Your task to perform on an android device: Open Reddit.com Image 0: 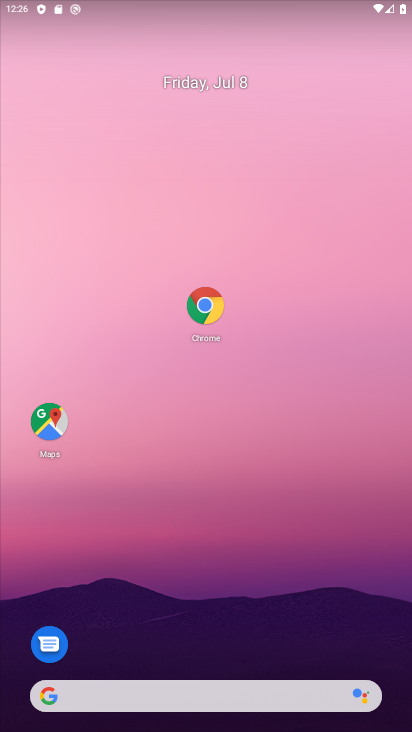
Step 0: drag from (183, 678) to (121, 352)
Your task to perform on an android device: Open Reddit.com Image 1: 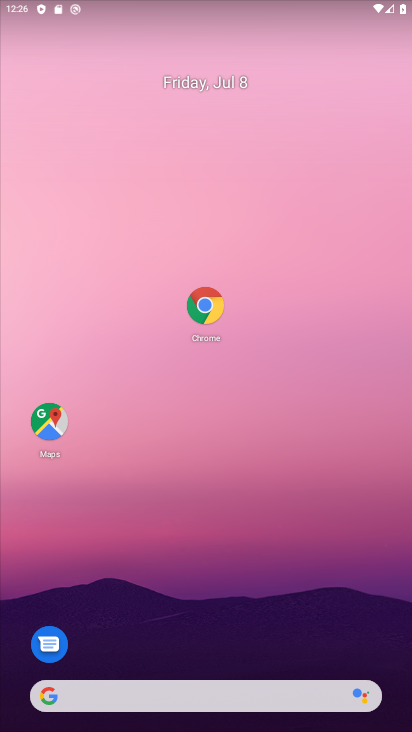
Step 1: drag from (184, 400) to (188, 176)
Your task to perform on an android device: Open Reddit.com Image 2: 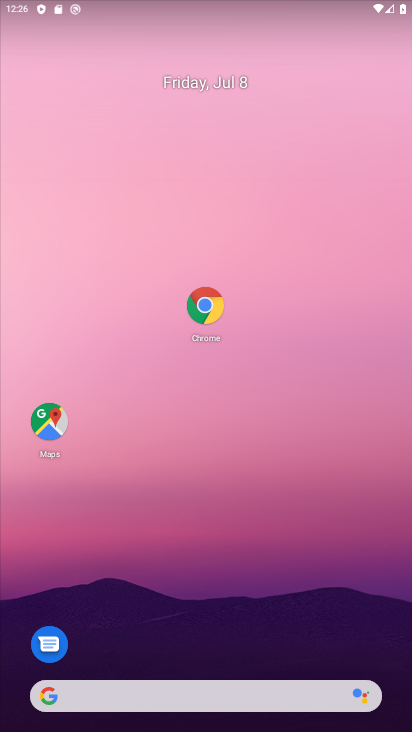
Step 2: drag from (178, 592) to (178, 223)
Your task to perform on an android device: Open Reddit.com Image 3: 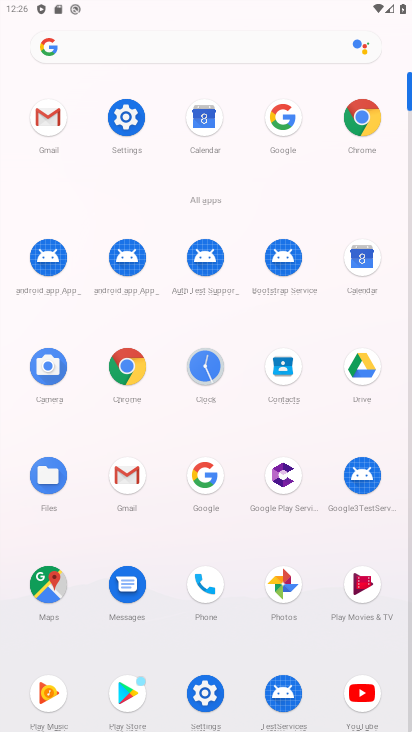
Step 3: click (202, 469)
Your task to perform on an android device: Open Reddit.com Image 4: 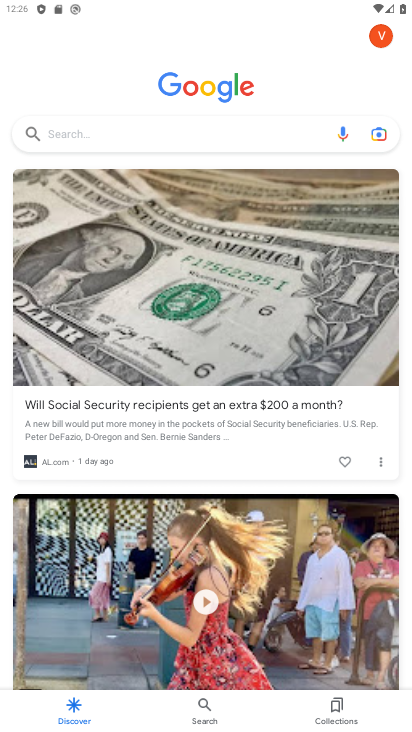
Step 4: click (92, 130)
Your task to perform on an android device: Open Reddit.com Image 5: 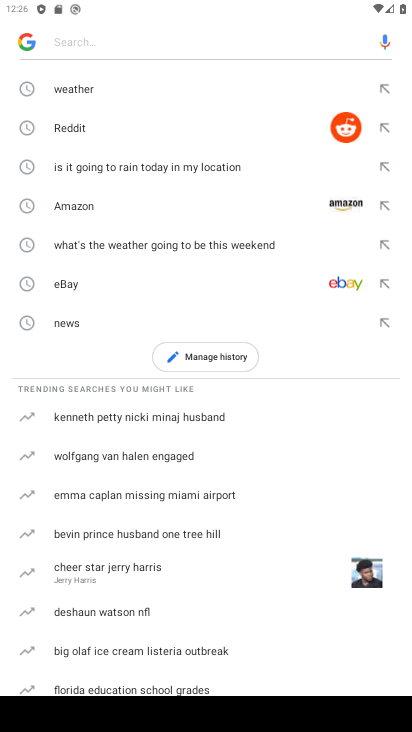
Step 5: click (192, 355)
Your task to perform on an android device: Open Reddit.com Image 6: 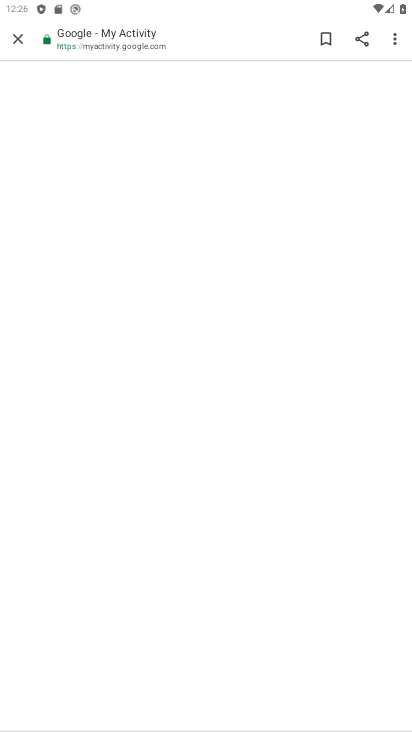
Step 6: click (20, 40)
Your task to perform on an android device: Open Reddit.com Image 7: 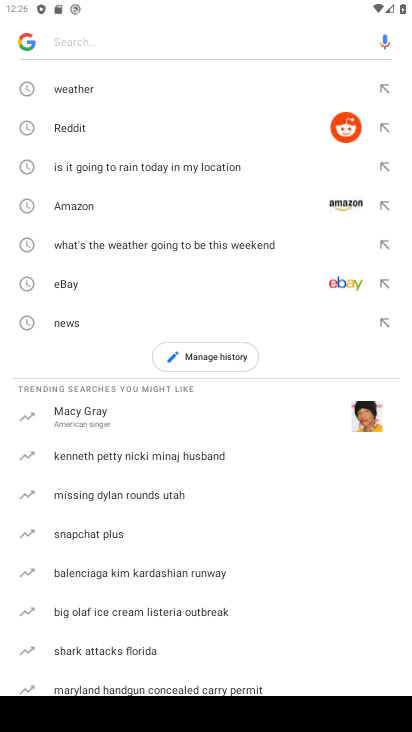
Step 7: click (95, 119)
Your task to perform on an android device: Open Reddit.com Image 8: 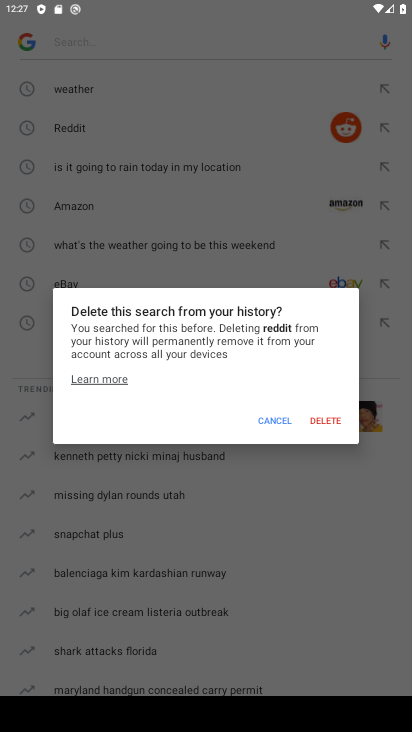
Step 8: click (77, 130)
Your task to perform on an android device: Open Reddit.com Image 9: 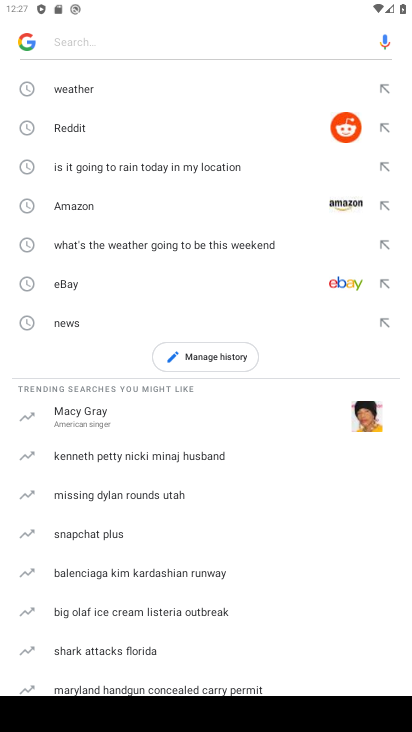
Step 9: click (77, 130)
Your task to perform on an android device: Open Reddit.com Image 10: 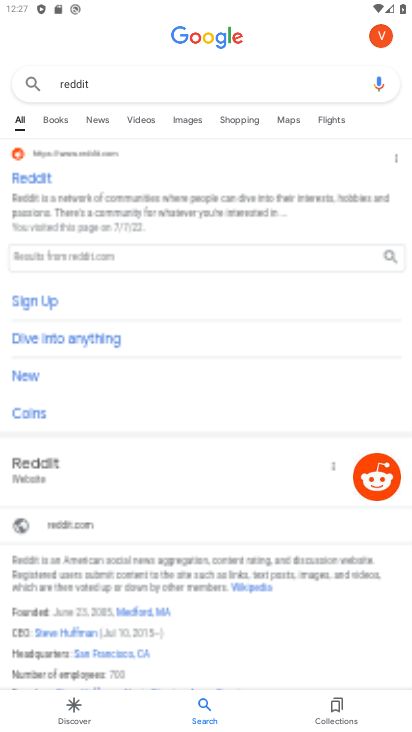
Step 10: click (62, 179)
Your task to perform on an android device: Open Reddit.com Image 11: 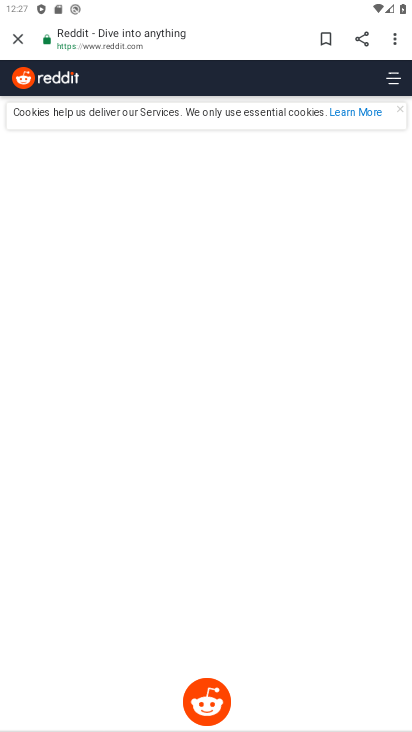
Step 11: task complete